Your task to perform on an android device: Open the Play Movies app and select the watchlist tab. Image 0: 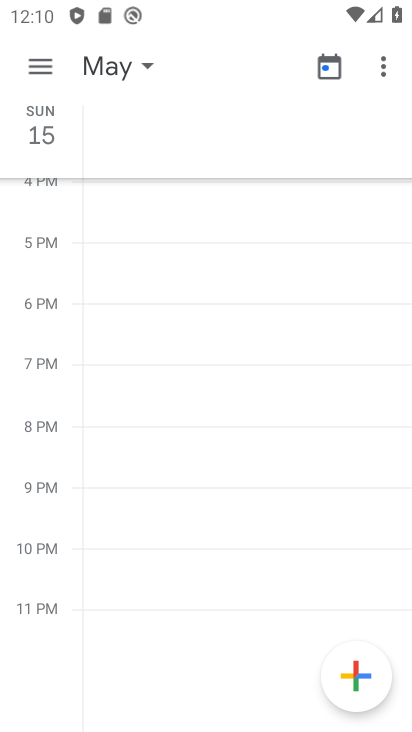
Step 0: press home button
Your task to perform on an android device: Open the Play Movies app and select the watchlist tab. Image 1: 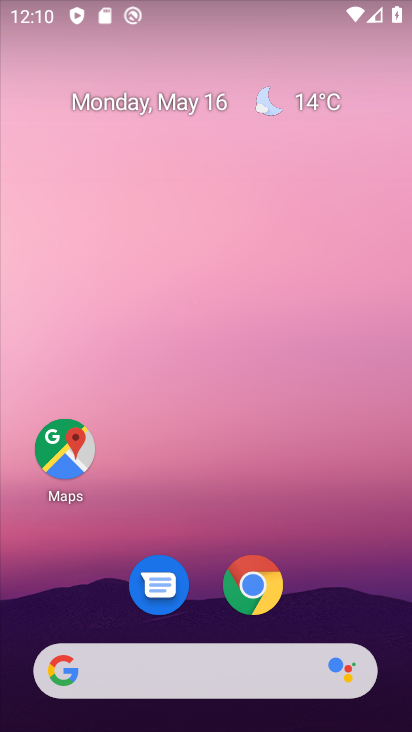
Step 1: drag from (218, 502) to (255, 1)
Your task to perform on an android device: Open the Play Movies app and select the watchlist tab. Image 2: 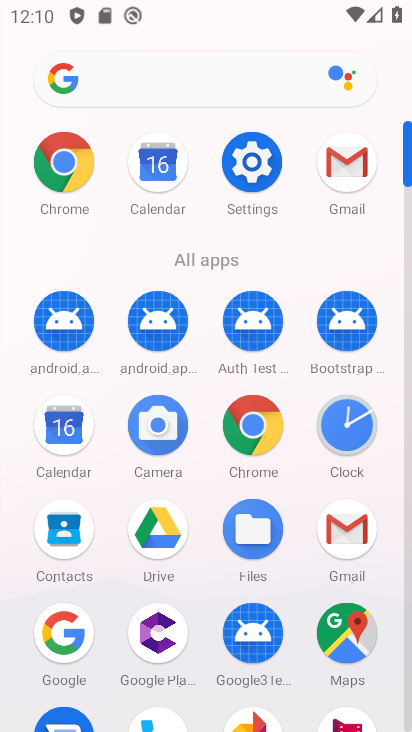
Step 2: drag from (296, 451) to (307, 273)
Your task to perform on an android device: Open the Play Movies app and select the watchlist tab. Image 3: 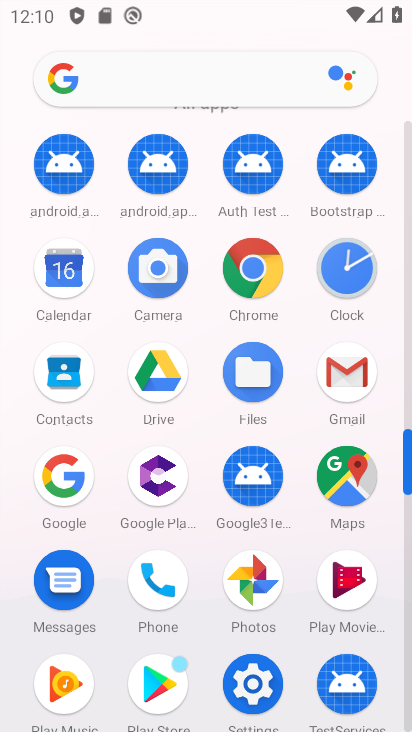
Step 3: click (348, 572)
Your task to perform on an android device: Open the Play Movies app and select the watchlist tab. Image 4: 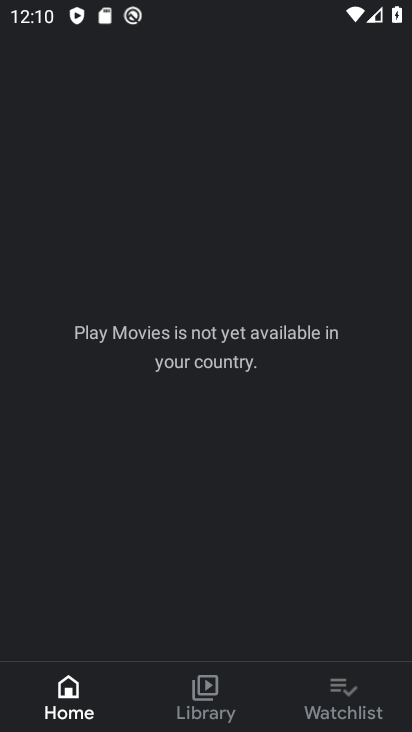
Step 4: click (343, 688)
Your task to perform on an android device: Open the Play Movies app and select the watchlist tab. Image 5: 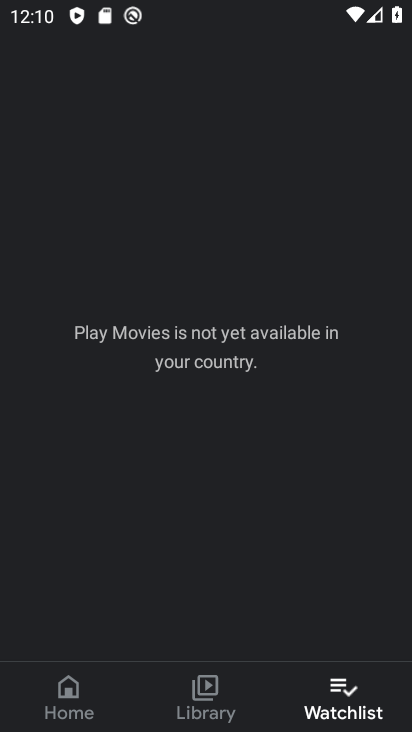
Step 5: task complete